Your task to perform on an android device: open chrome privacy settings Image 0: 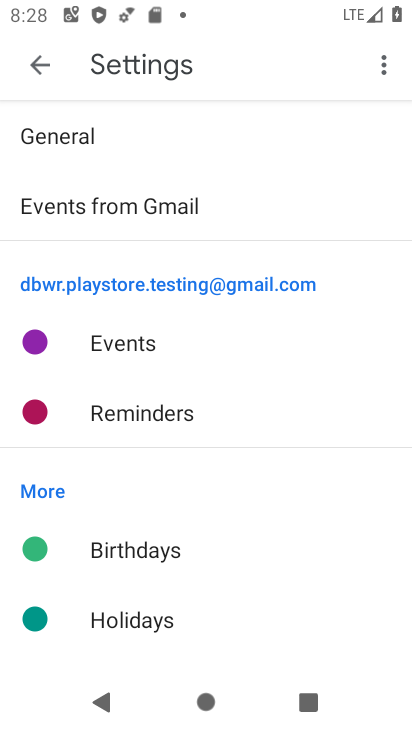
Step 0: press home button
Your task to perform on an android device: open chrome privacy settings Image 1: 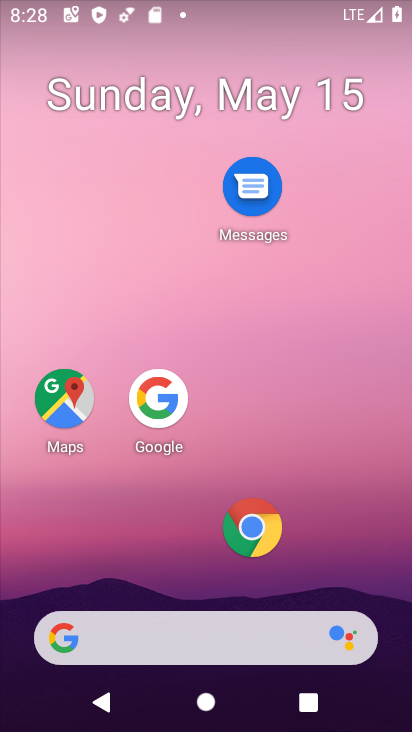
Step 1: click (252, 533)
Your task to perform on an android device: open chrome privacy settings Image 2: 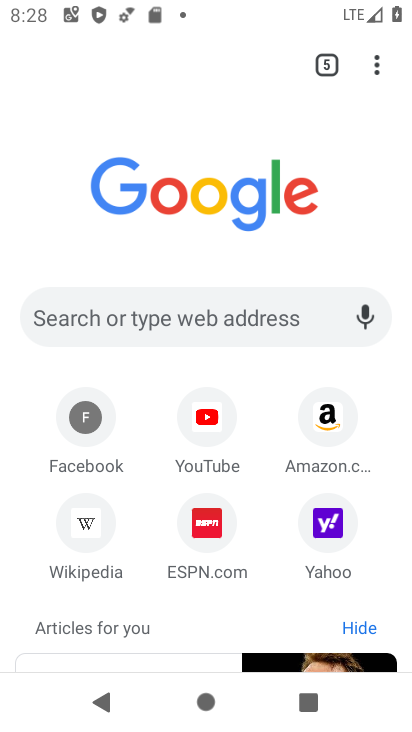
Step 2: drag from (377, 74) to (169, 548)
Your task to perform on an android device: open chrome privacy settings Image 3: 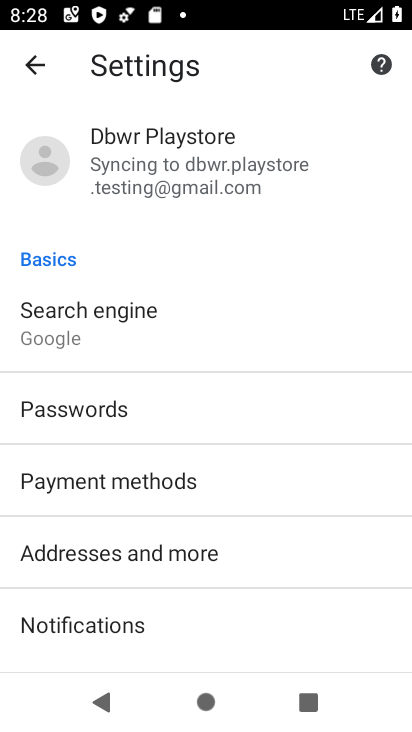
Step 3: drag from (222, 599) to (338, 244)
Your task to perform on an android device: open chrome privacy settings Image 4: 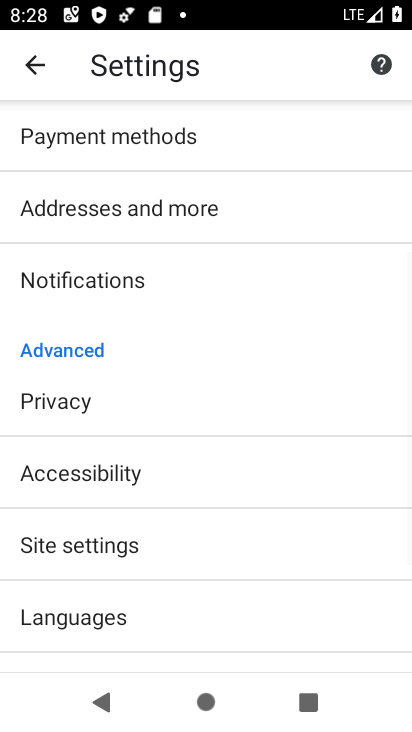
Step 4: click (69, 403)
Your task to perform on an android device: open chrome privacy settings Image 5: 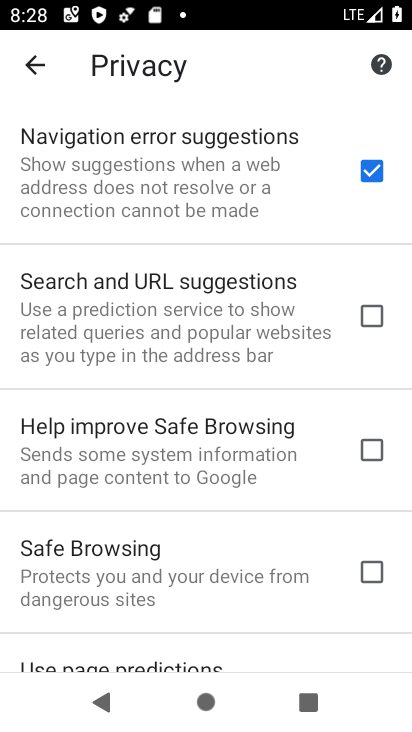
Step 5: task complete